Your task to perform on an android device: Open network settings Image 0: 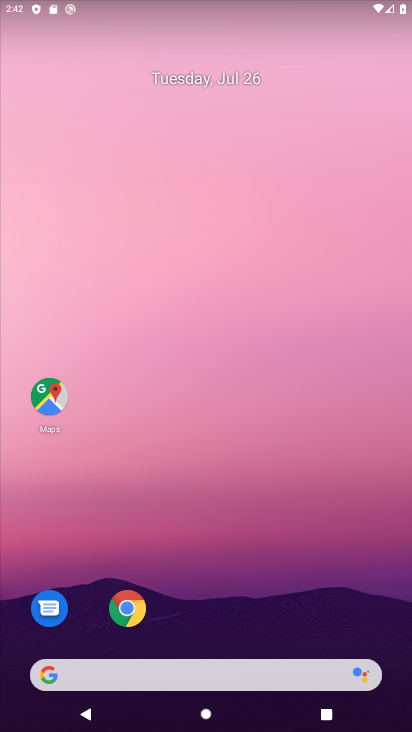
Step 0: drag from (215, 634) to (171, 8)
Your task to perform on an android device: Open network settings Image 1: 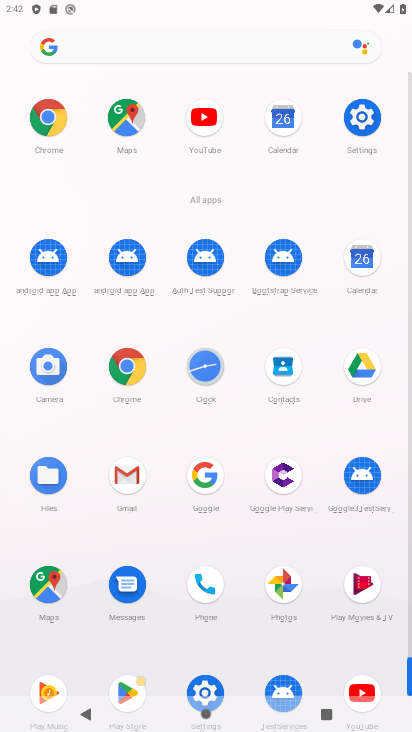
Step 1: click (368, 124)
Your task to perform on an android device: Open network settings Image 2: 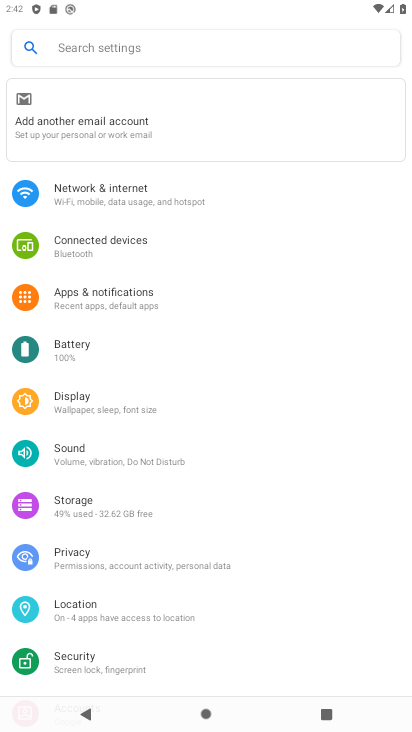
Step 2: click (102, 204)
Your task to perform on an android device: Open network settings Image 3: 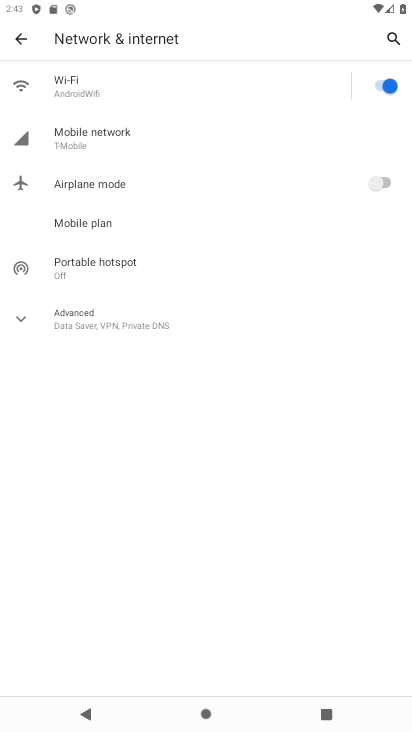
Step 3: task complete